Your task to perform on an android device: What is the news today? Image 0: 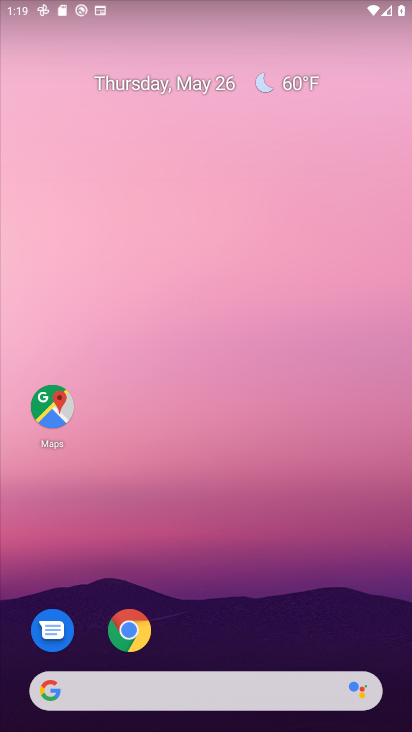
Step 0: drag from (268, 552) to (213, 68)
Your task to perform on an android device: What is the news today? Image 1: 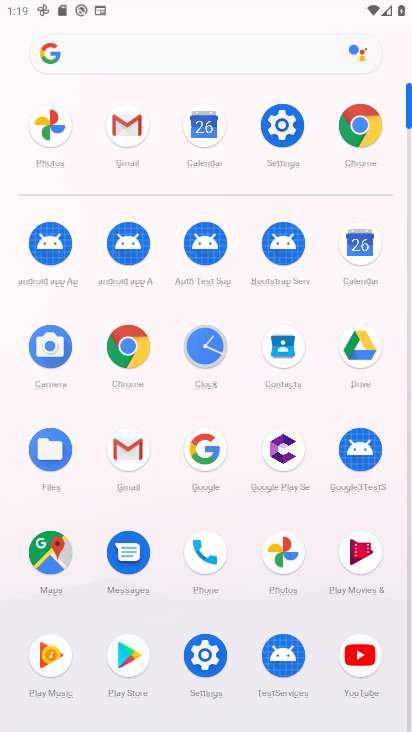
Step 1: click (365, 133)
Your task to perform on an android device: What is the news today? Image 2: 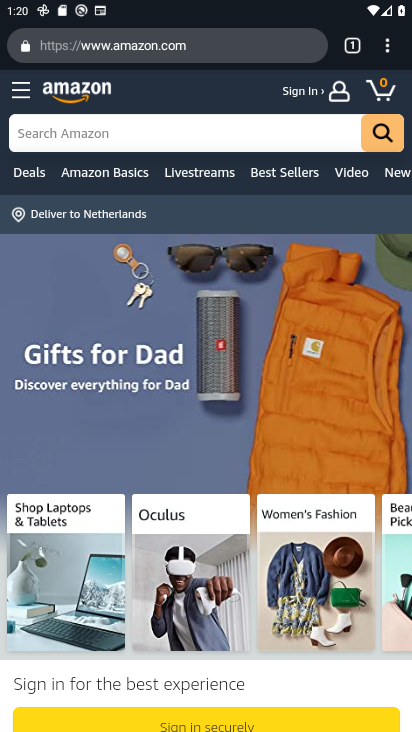
Step 2: press home button
Your task to perform on an android device: What is the news today? Image 3: 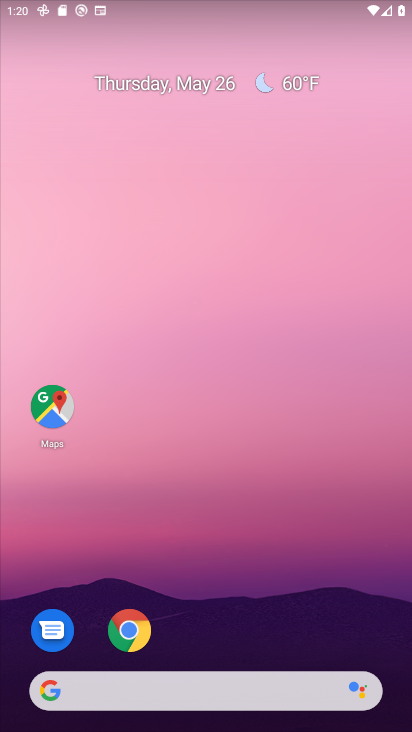
Step 3: drag from (282, 515) to (286, 166)
Your task to perform on an android device: What is the news today? Image 4: 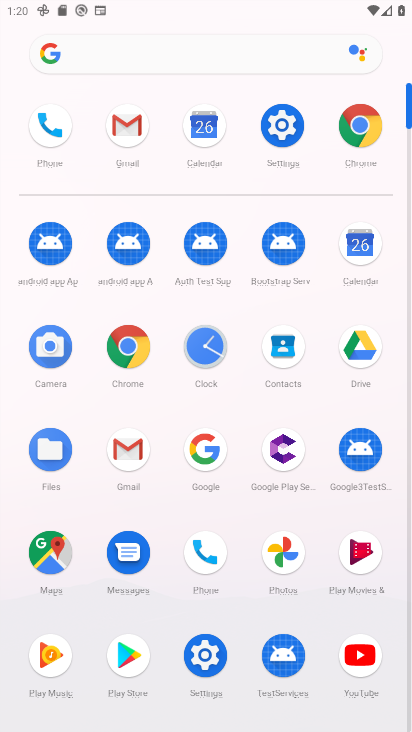
Step 4: click (371, 120)
Your task to perform on an android device: What is the news today? Image 5: 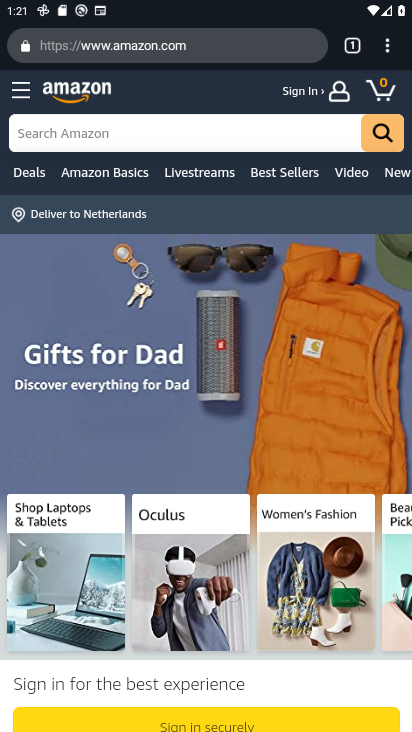
Step 5: task complete